Your task to perform on an android device: delete a single message in the gmail app Image 0: 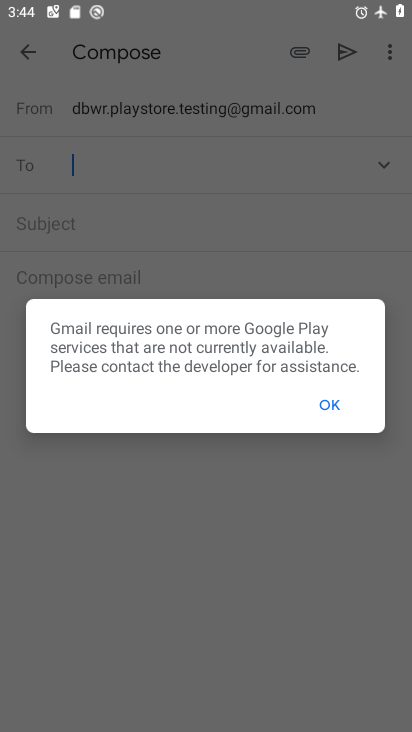
Step 0: press home button
Your task to perform on an android device: delete a single message in the gmail app Image 1: 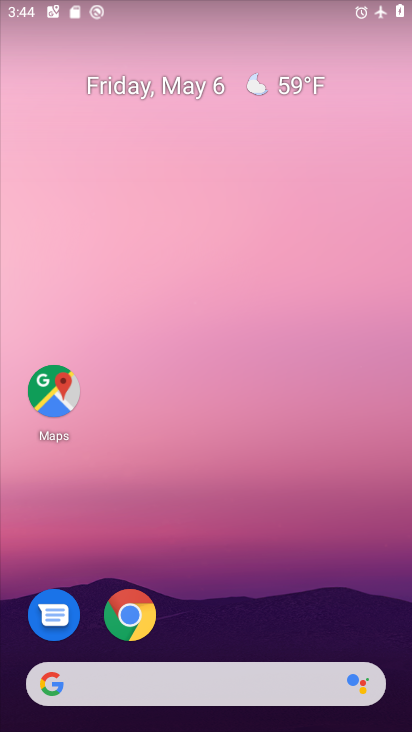
Step 1: drag from (319, 631) to (354, 63)
Your task to perform on an android device: delete a single message in the gmail app Image 2: 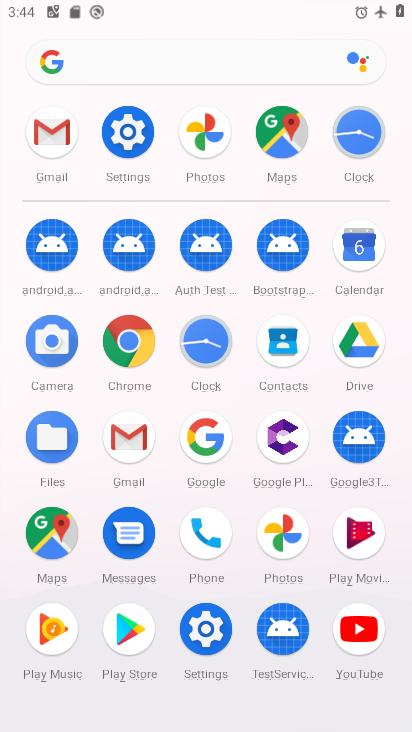
Step 2: click (52, 142)
Your task to perform on an android device: delete a single message in the gmail app Image 3: 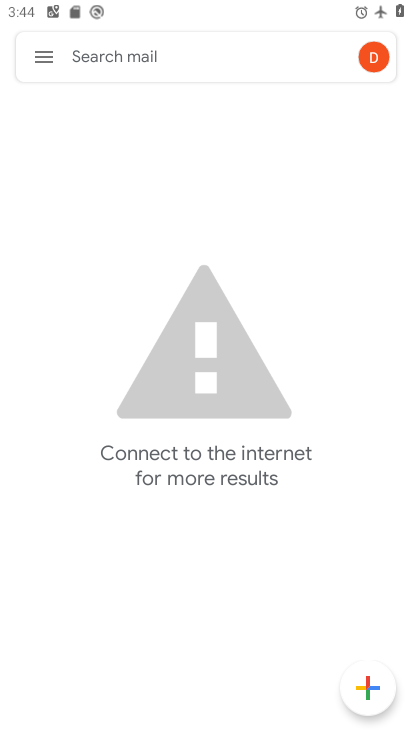
Step 3: click (45, 57)
Your task to perform on an android device: delete a single message in the gmail app Image 4: 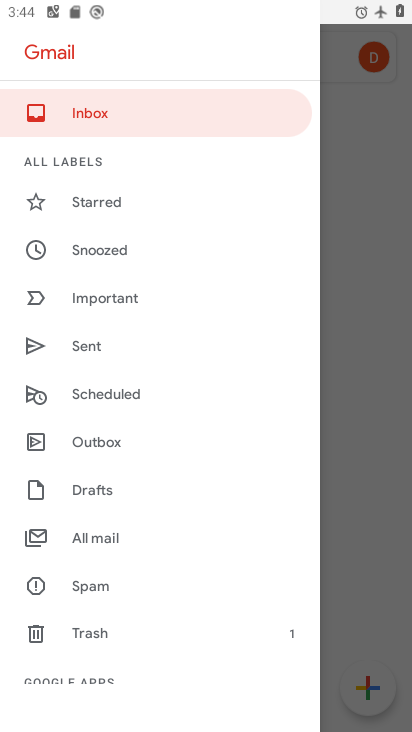
Step 4: click (110, 536)
Your task to perform on an android device: delete a single message in the gmail app Image 5: 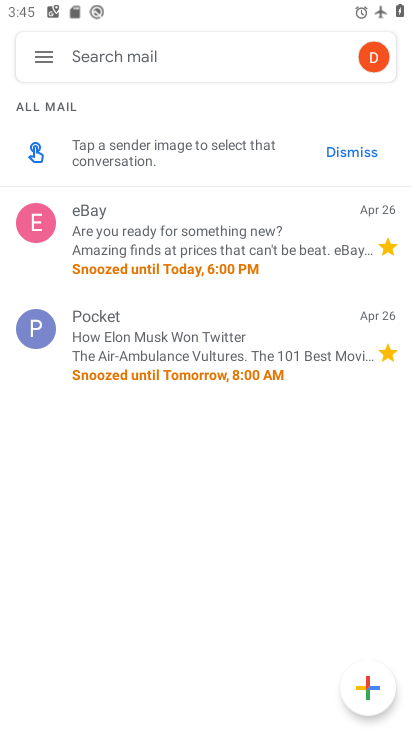
Step 5: click (146, 239)
Your task to perform on an android device: delete a single message in the gmail app Image 6: 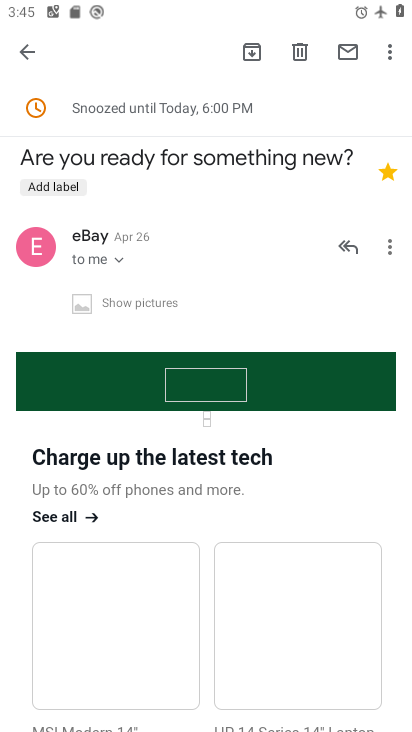
Step 6: click (298, 55)
Your task to perform on an android device: delete a single message in the gmail app Image 7: 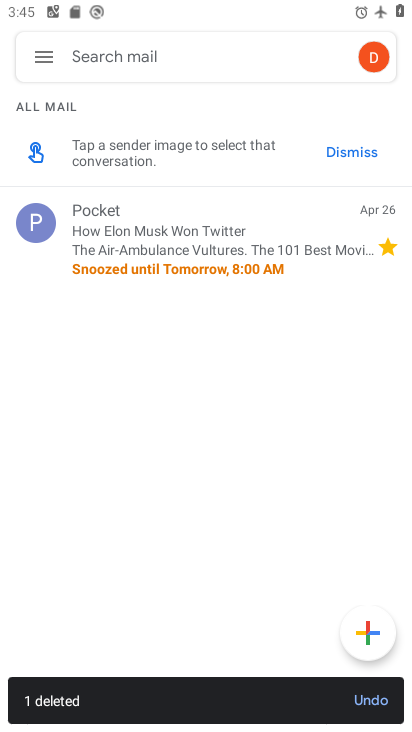
Step 7: task complete